Your task to perform on an android device: add a contact Image 0: 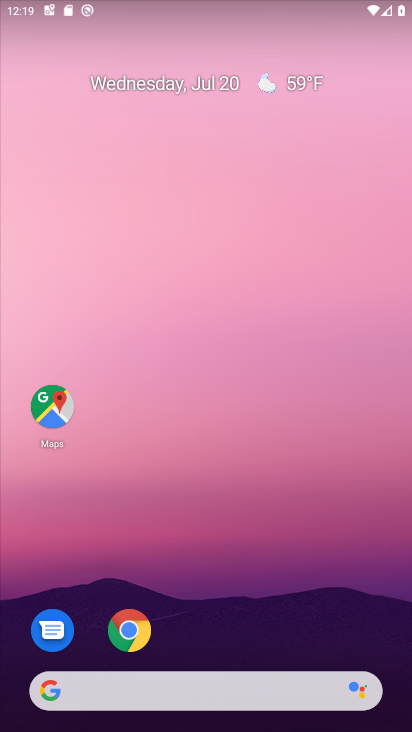
Step 0: drag from (360, 636) to (327, 110)
Your task to perform on an android device: add a contact Image 1: 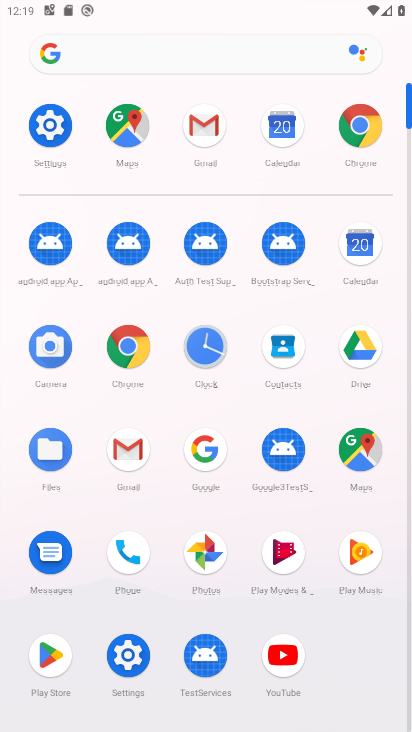
Step 1: click (285, 342)
Your task to perform on an android device: add a contact Image 2: 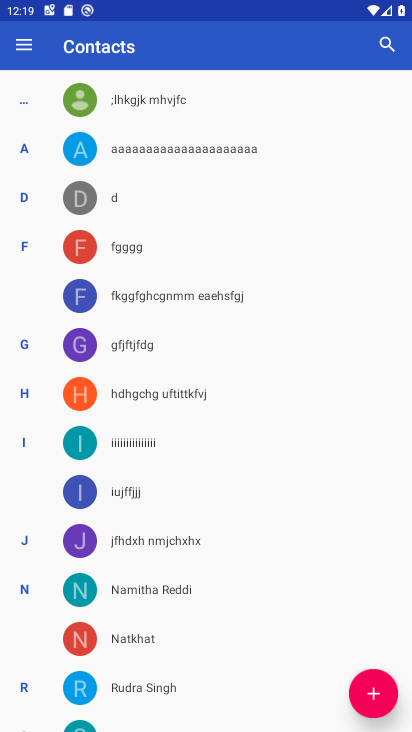
Step 2: click (374, 686)
Your task to perform on an android device: add a contact Image 3: 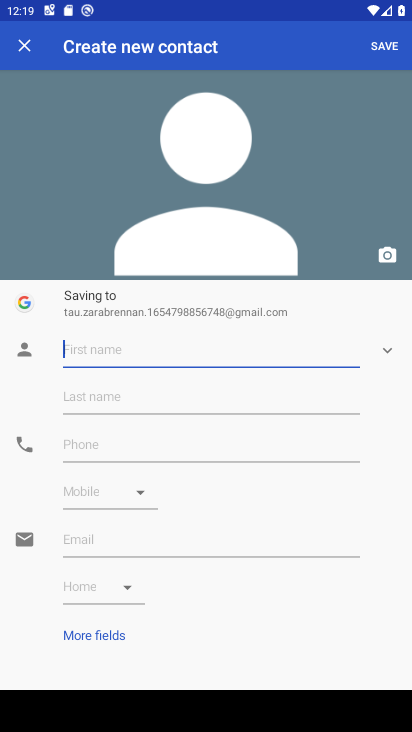
Step 3: type "kjuyttert"
Your task to perform on an android device: add a contact Image 4: 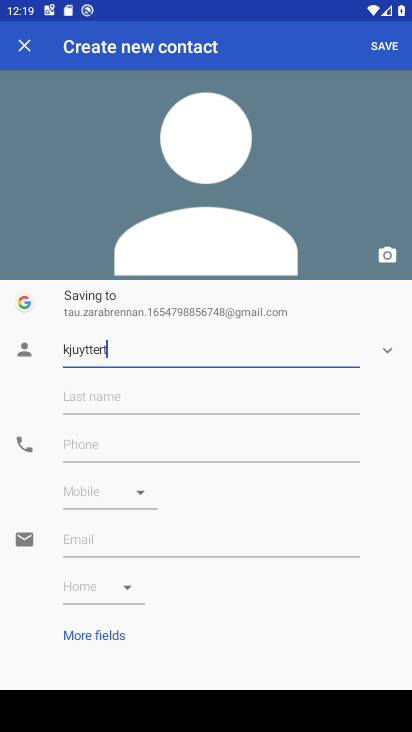
Step 4: click (117, 462)
Your task to perform on an android device: add a contact Image 5: 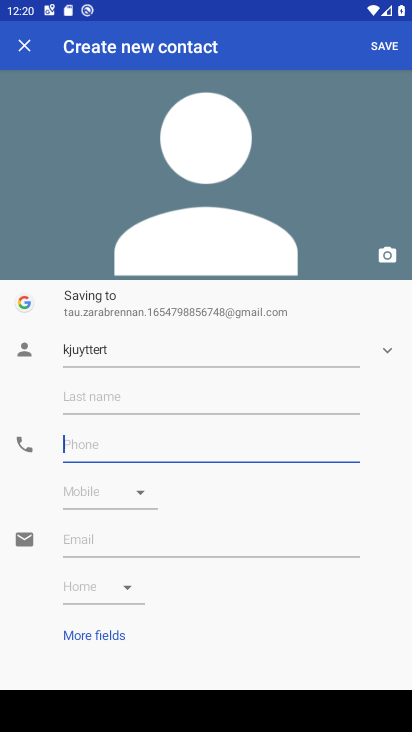
Step 5: type "09865434567"
Your task to perform on an android device: add a contact Image 6: 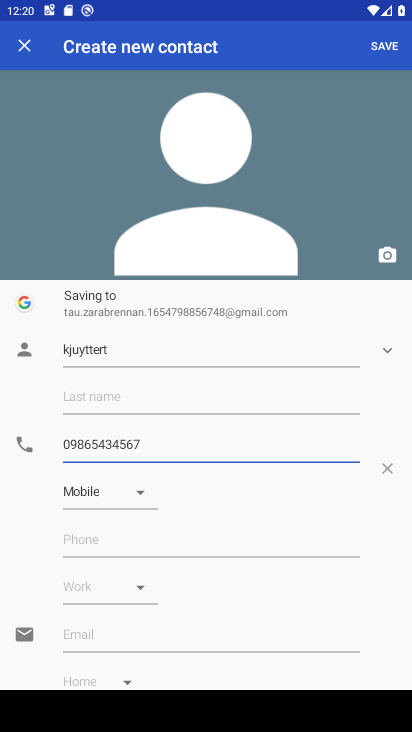
Step 6: click (380, 45)
Your task to perform on an android device: add a contact Image 7: 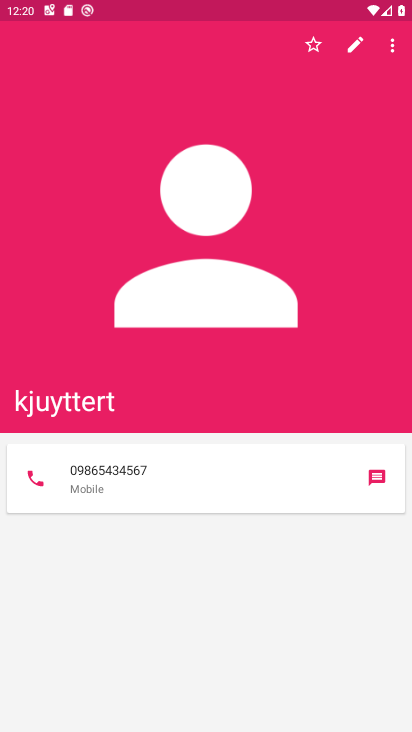
Step 7: task complete